Your task to perform on an android device: read, delete, or share a saved page in the chrome app Image 0: 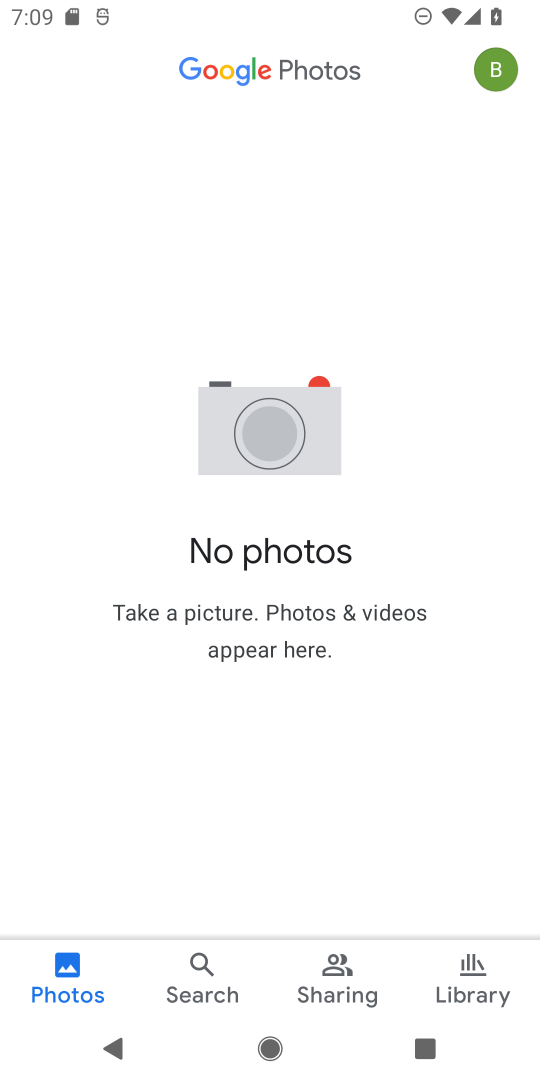
Step 0: press back button
Your task to perform on an android device: read, delete, or share a saved page in the chrome app Image 1: 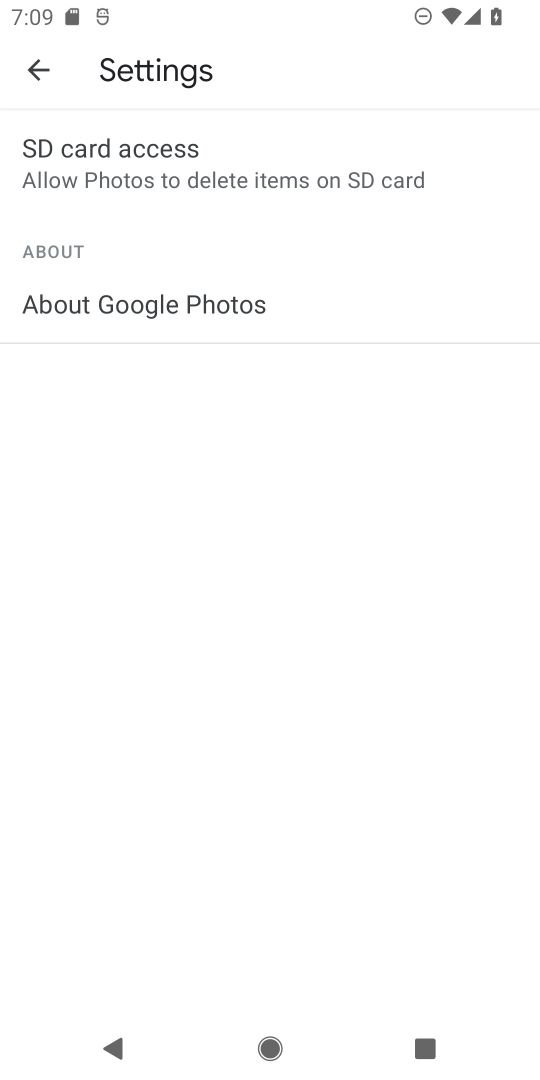
Step 1: press back button
Your task to perform on an android device: read, delete, or share a saved page in the chrome app Image 2: 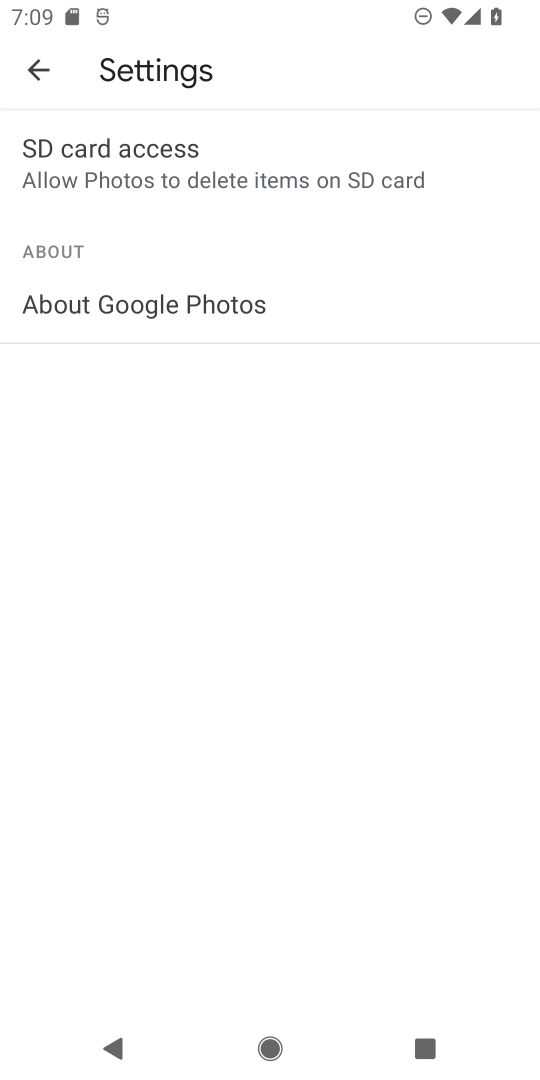
Step 2: press home button
Your task to perform on an android device: read, delete, or share a saved page in the chrome app Image 3: 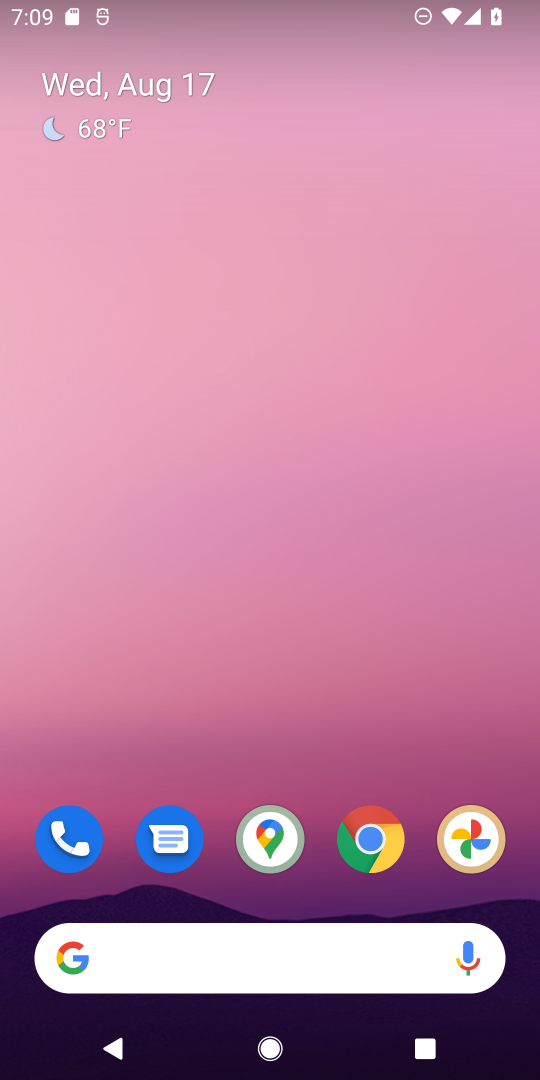
Step 3: click (360, 850)
Your task to perform on an android device: read, delete, or share a saved page in the chrome app Image 4: 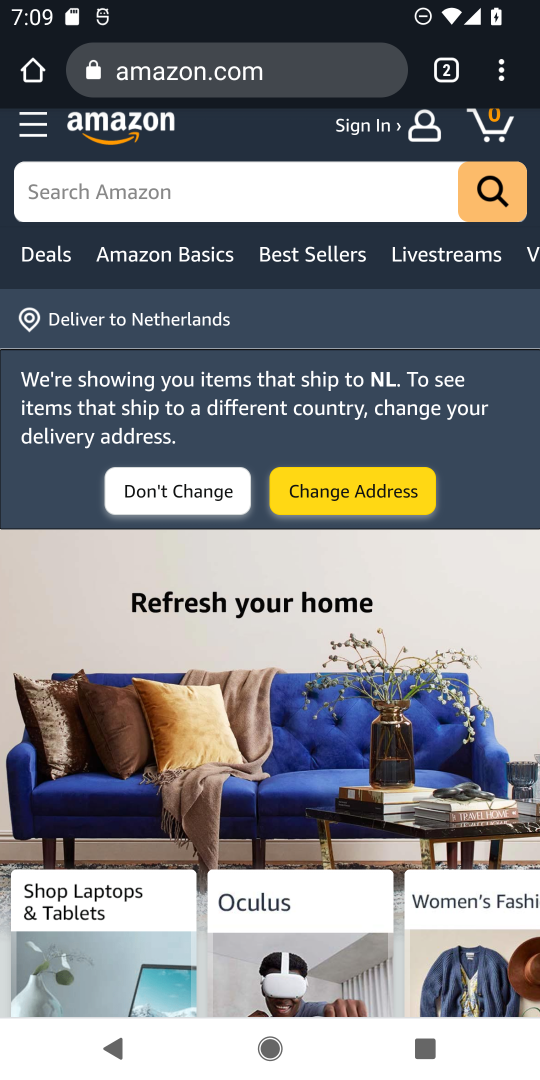
Step 4: click (510, 76)
Your task to perform on an android device: read, delete, or share a saved page in the chrome app Image 5: 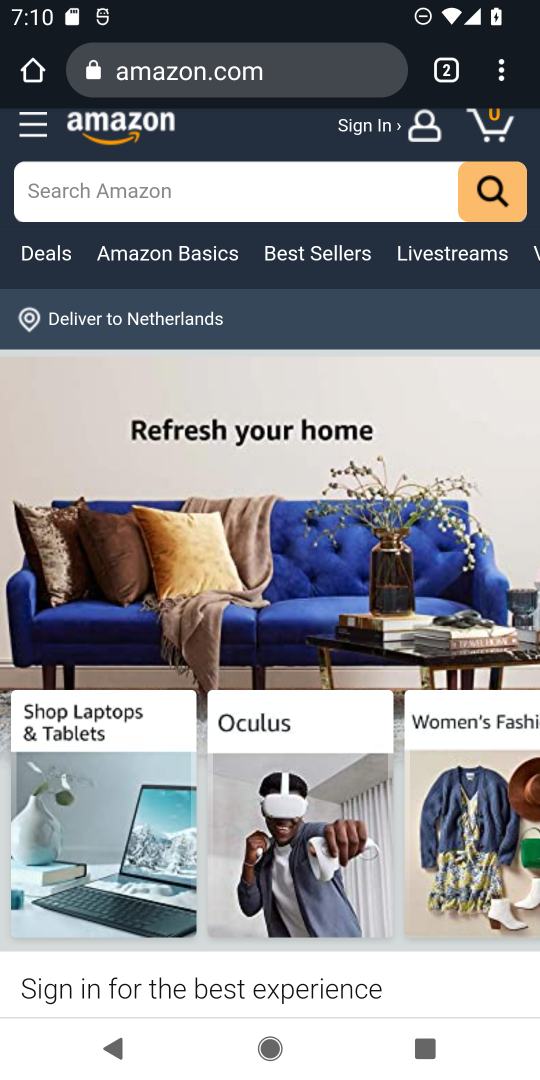
Step 5: click (510, 76)
Your task to perform on an android device: read, delete, or share a saved page in the chrome app Image 6: 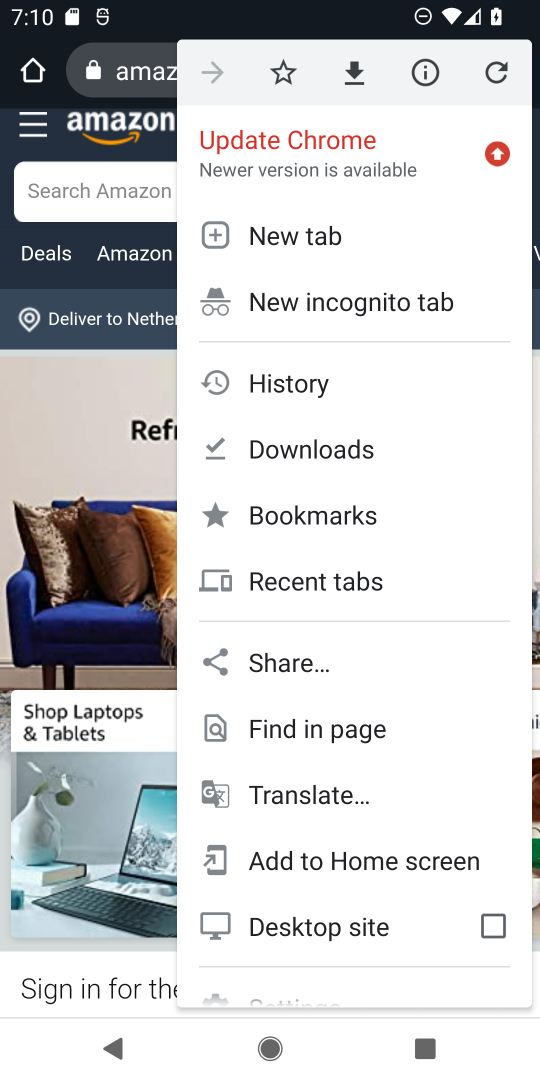
Step 6: click (315, 435)
Your task to perform on an android device: read, delete, or share a saved page in the chrome app Image 7: 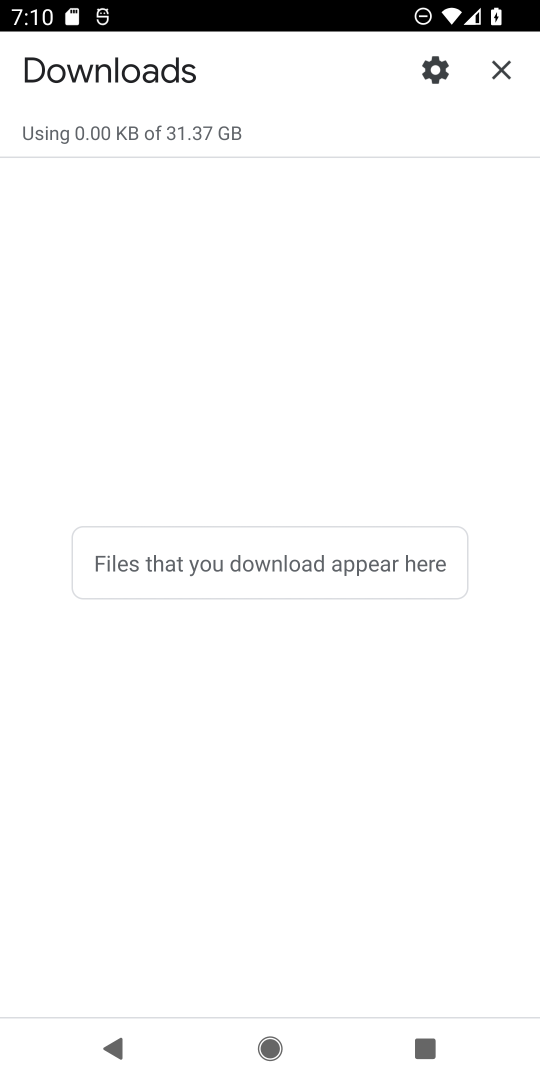
Step 7: task complete